Your task to perform on an android device: What's on my calendar tomorrow? Image 0: 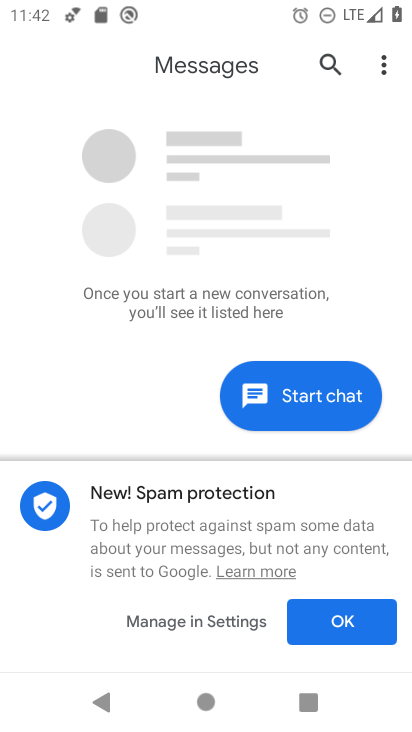
Step 0: press home button
Your task to perform on an android device: What's on my calendar tomorrow? Image 1: 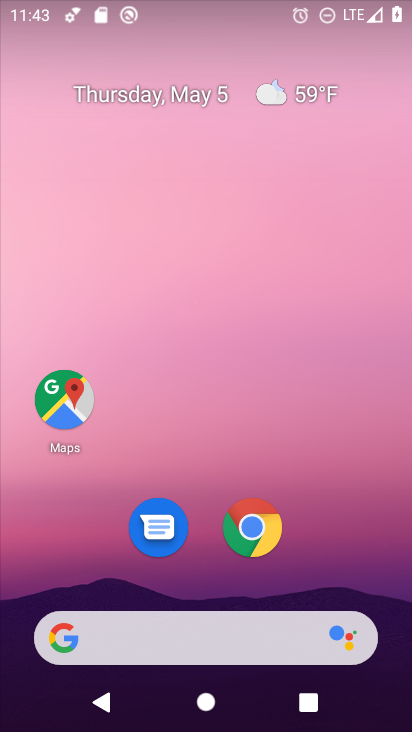
Step 1: drag from (251, 673) to (239, 48)
Your task to perform on an android device: What's on my calendar tomorrow? Image 2: 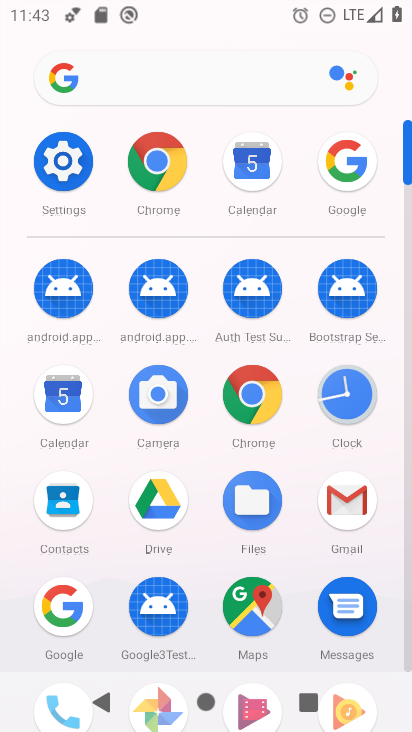
Step 2: click (56, 382)
Your task to perform on an android device: What's on my calendar tomorrow? Image 3: 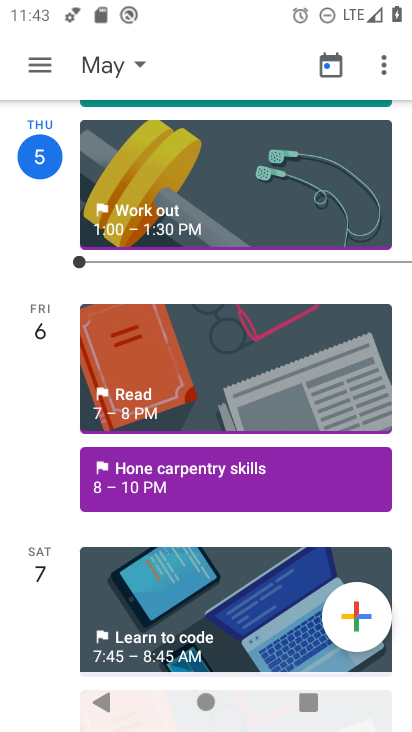
Step 3: task complete